Your task to perform on an android device: Open accessibility settings Image 0: 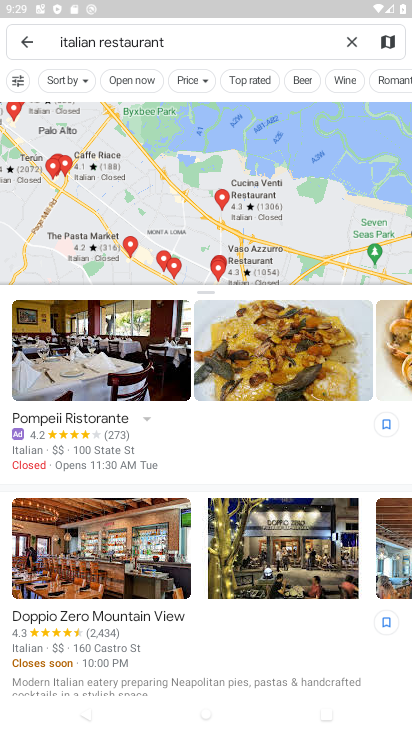
Step 0: press home button
Your task to perform on an android device: Open accessibility settings Image 1: 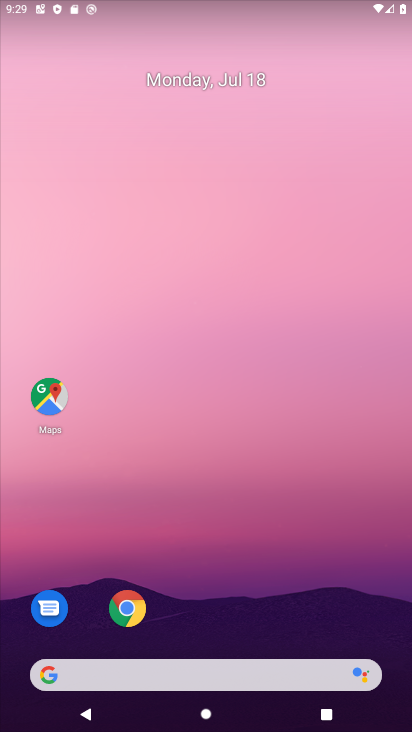
Step 1: drag from (205, 620) to (210, 24)
Your task to perform on an android device: Open accessibility settings Image 2: 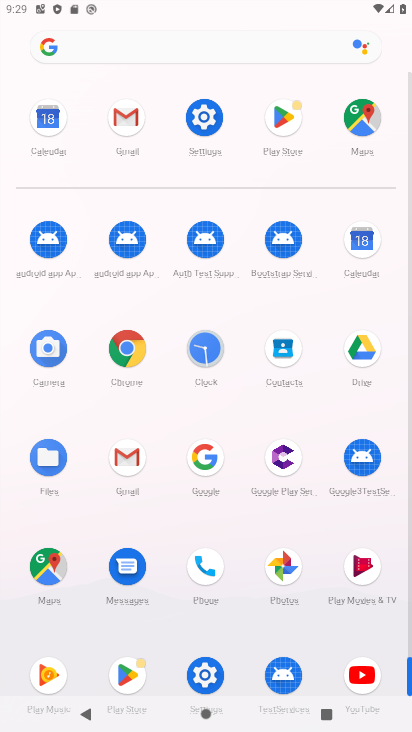
Step 2: click (209, 677)
Your task to perform on an android device: Open accessibility settings Image 3: 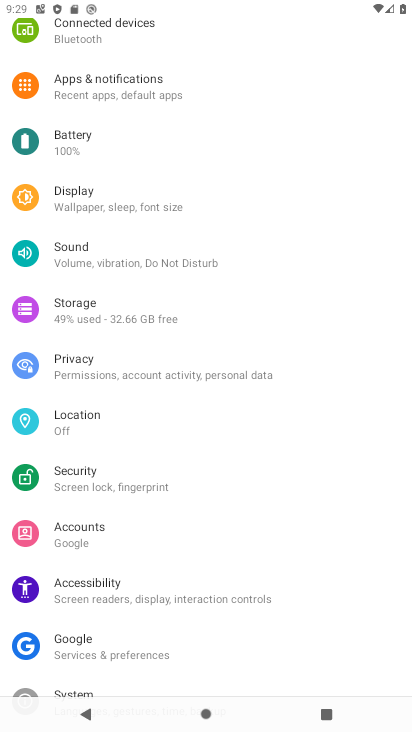
Step 3: click (93, 590)
Your task to perform on an android device: Open accessibility settings Image 4: 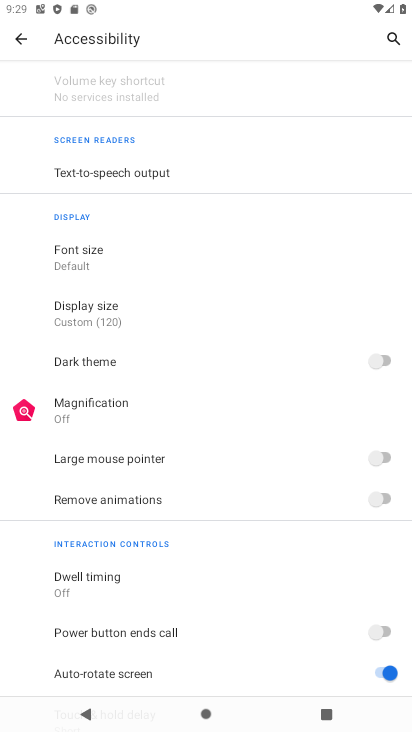
Step 4: task complete